Your task to perform on an android device: When is my next meeting? Image 0: 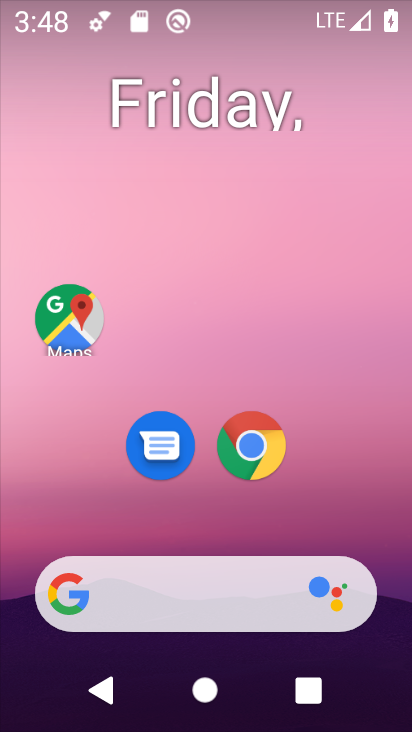
Step 0: drag from (346, 511) to (275, 101)
Your task to perform on an android device: When is my next meeting? Image 1: 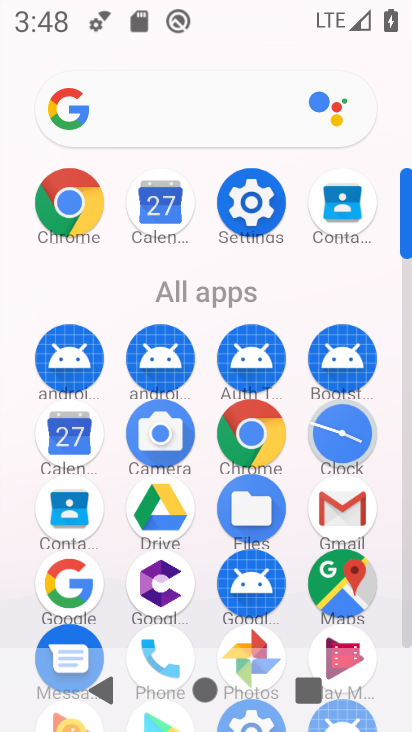
Step 1: click (165, 204)
Your task to perform on an android device: When is my next meeting? Image 2: 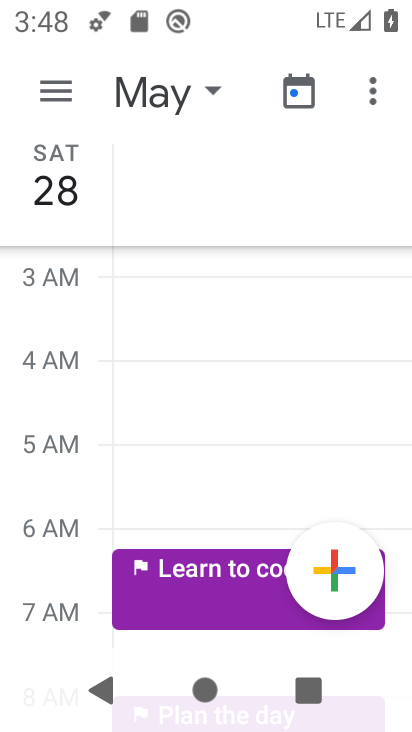
Step 2: click (173, 95)
Your task to perform on an android device: When is my next meeting? Image 3: 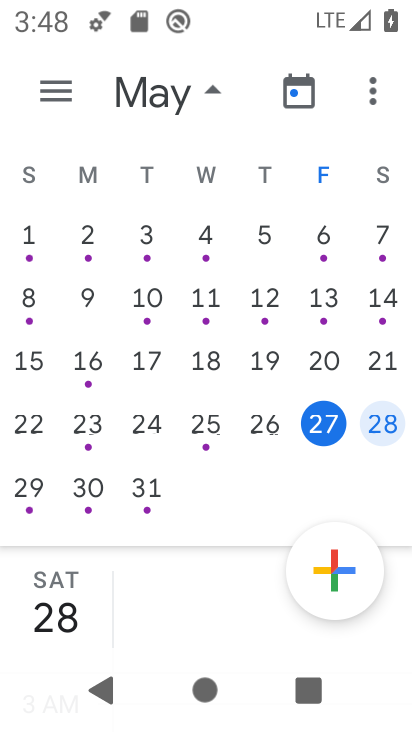
Step 3: click (325, 421)
Your task to perform on an android device: When is my next meeting? Image 4: 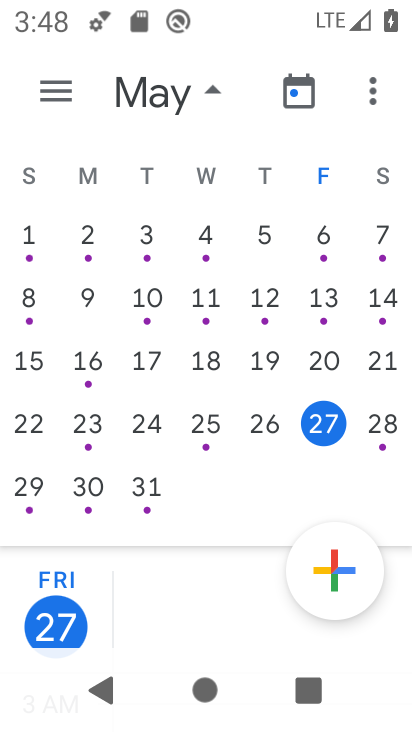
Step 4: click (140, 108)
Your task to perform on an android device: When is my next meeting? Image 5: 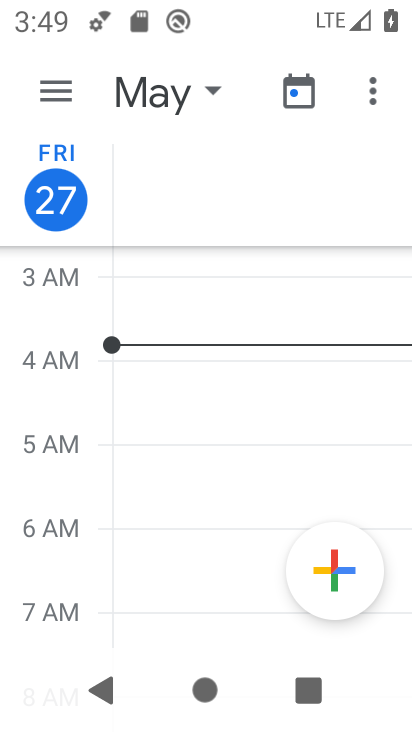
Step 5: task complete